Your task to perform on an android device: toggle wifi Image 0: 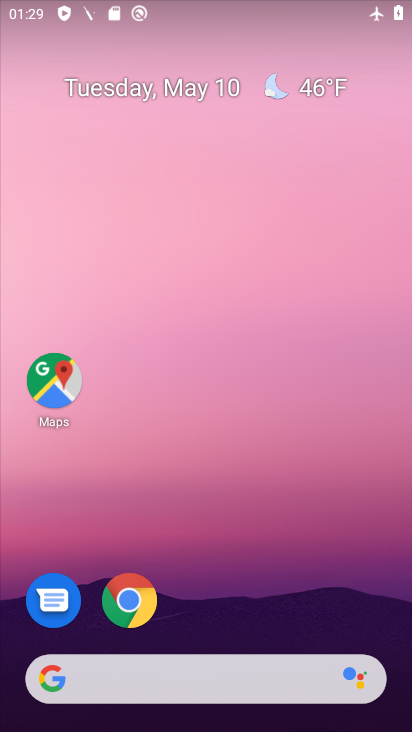
Step 0: drag from (219, 656) to (227, 12)
Your task to perform on an android device: toggle wifi Image 1: 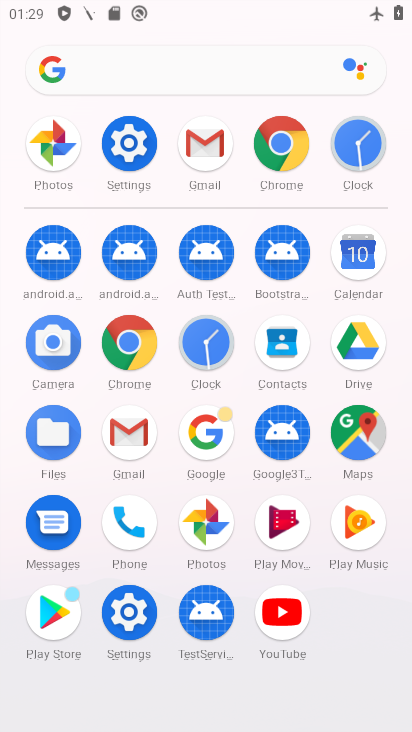
Step 1: click (132, 622)
Your task to perform on an android device: toggle wifi Image 2: 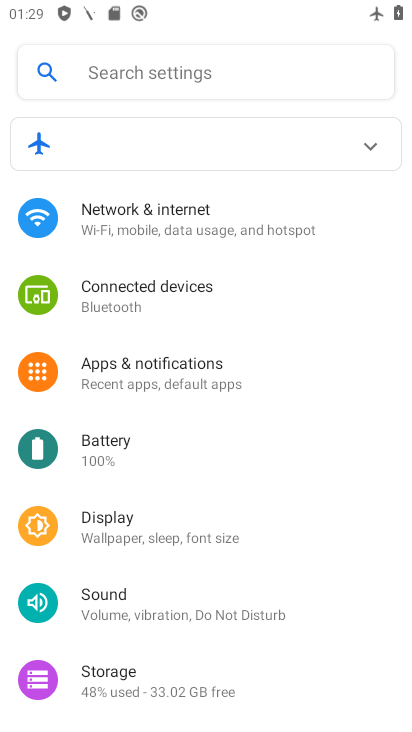
Step 2: click (130, 222)
Your task to perform on an android device: toggle wifi Image 3: 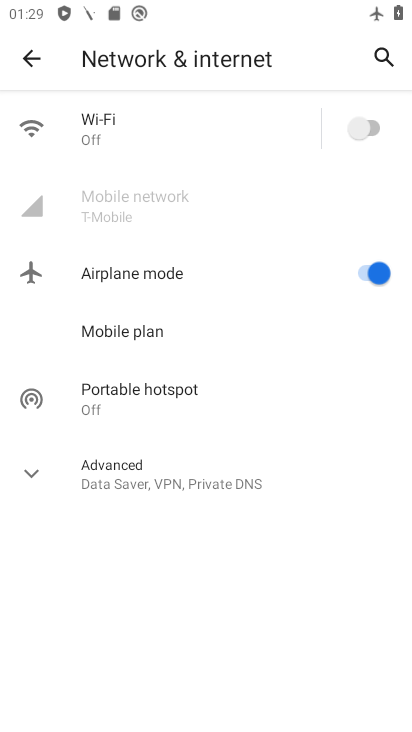
Step 3: click (368, 123)
Your task to perform on an android device: toggle wifi Image 4: 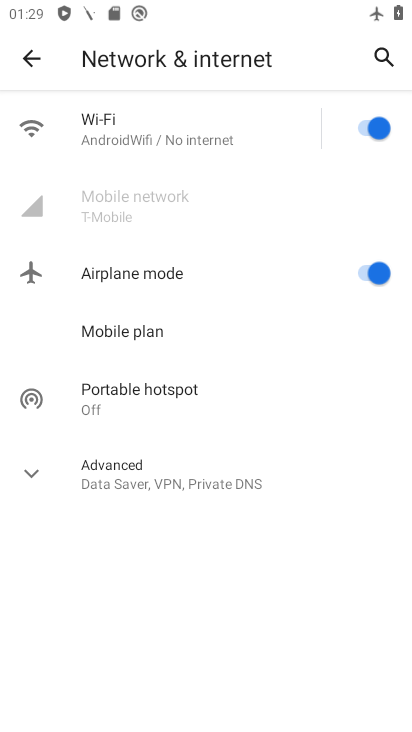
Step 4: task complete